Your task to perform on an android device: View the shopping cart on bestbuy.com. Search for "apple airpods pro" on bestbuy.com, select the first entry, and add it to the cart. Image 0: 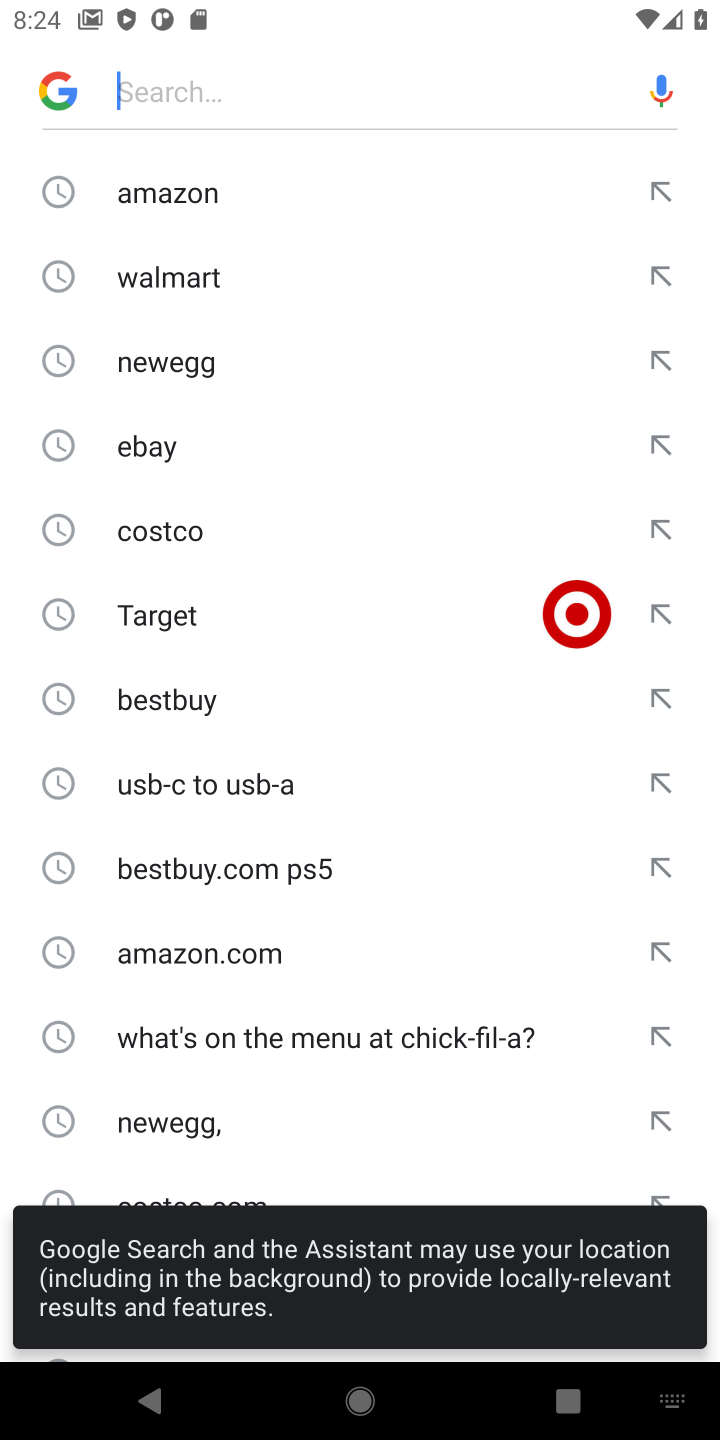
Step 0: press home button
Your task to perform on an android device: View the shopping cart on bestbuy.com. Search for "apple airpods pro" on bestbuy.com, select the first entry, and add it to the cart. Image 1: 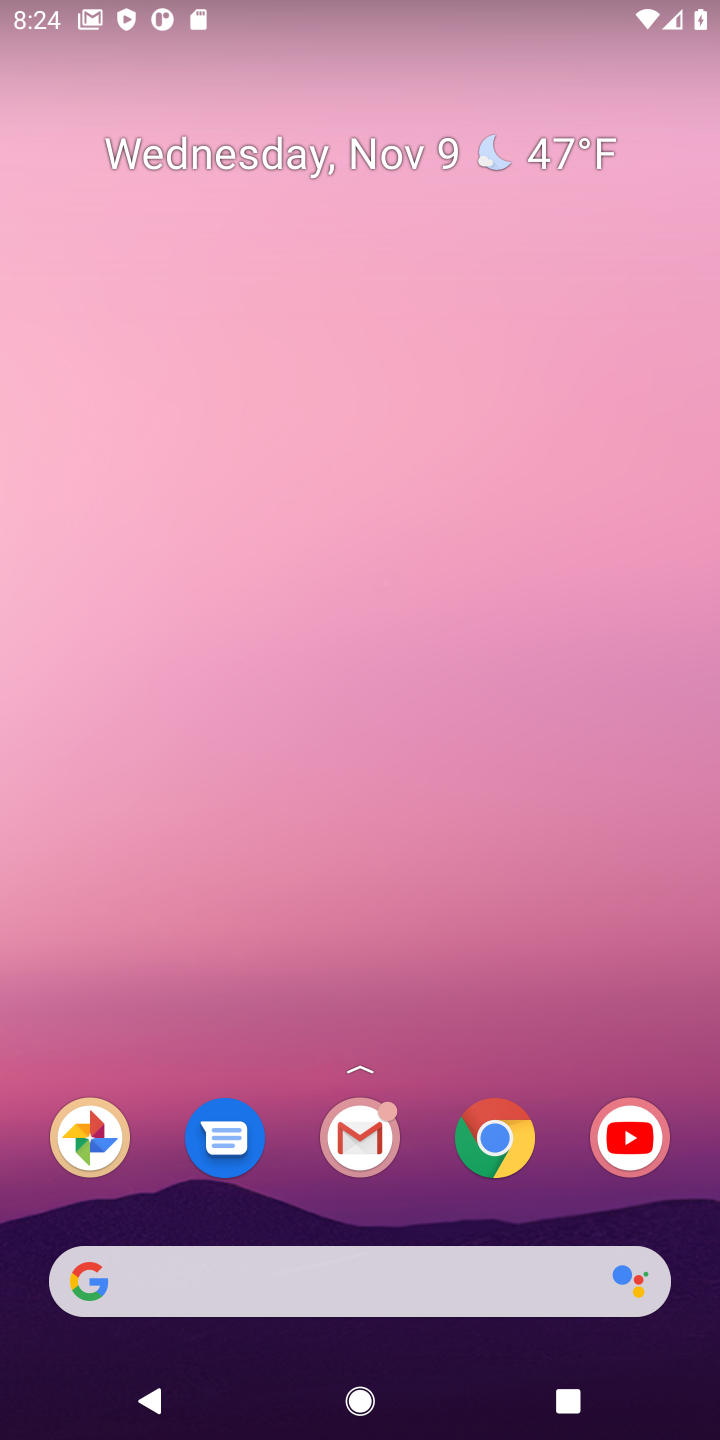
Step 1: drag from (421, 1206) to (267, 19)
Your task to perform on an android device: View the shopping cart on bestbuy.com. Search for "apple airpods pro" on bestbuy.com, select the first entry, and add it to the cart. Image 2: 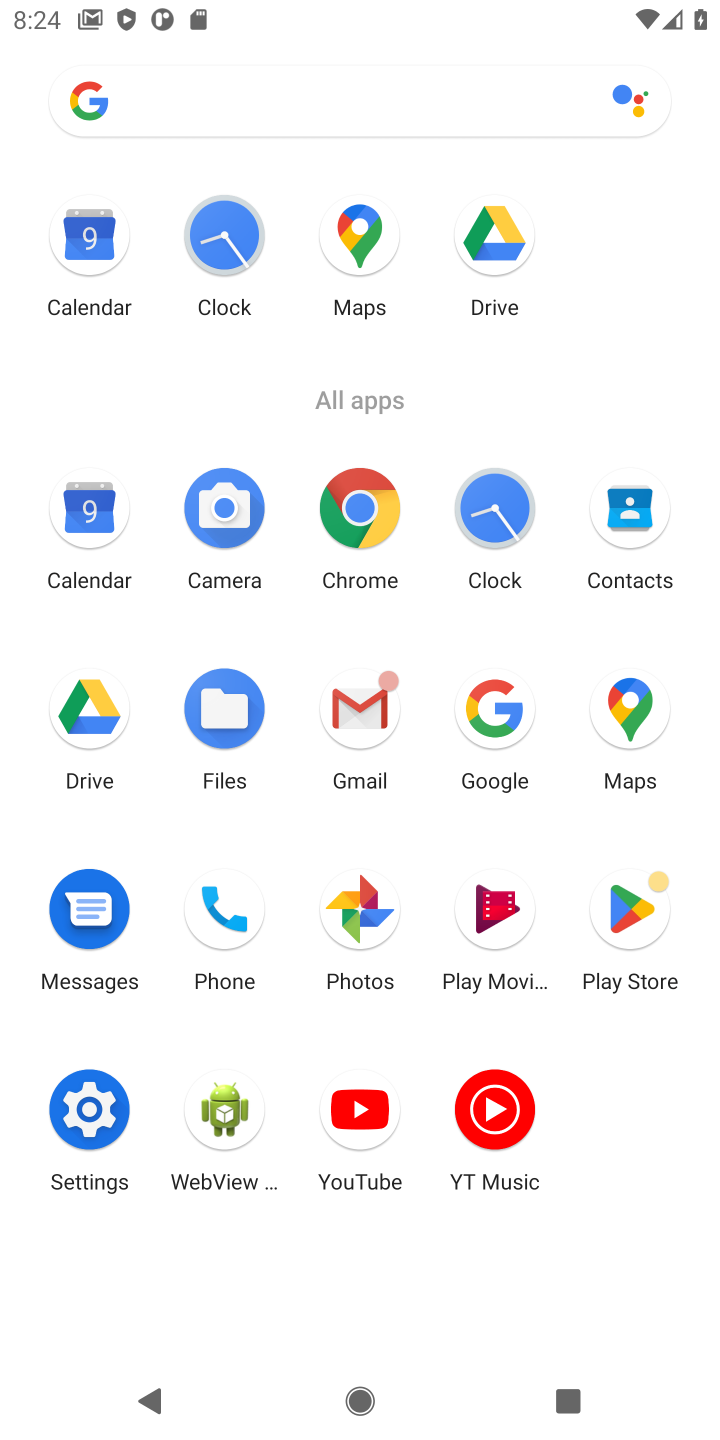
Step 2: click (372, 501)
Your task to perform on an android device: View the shopping cart on bestbuy.com. Search for "apple airpods pro" on bestbuy.com, select the first entry, and add it to the cart. Image 3: 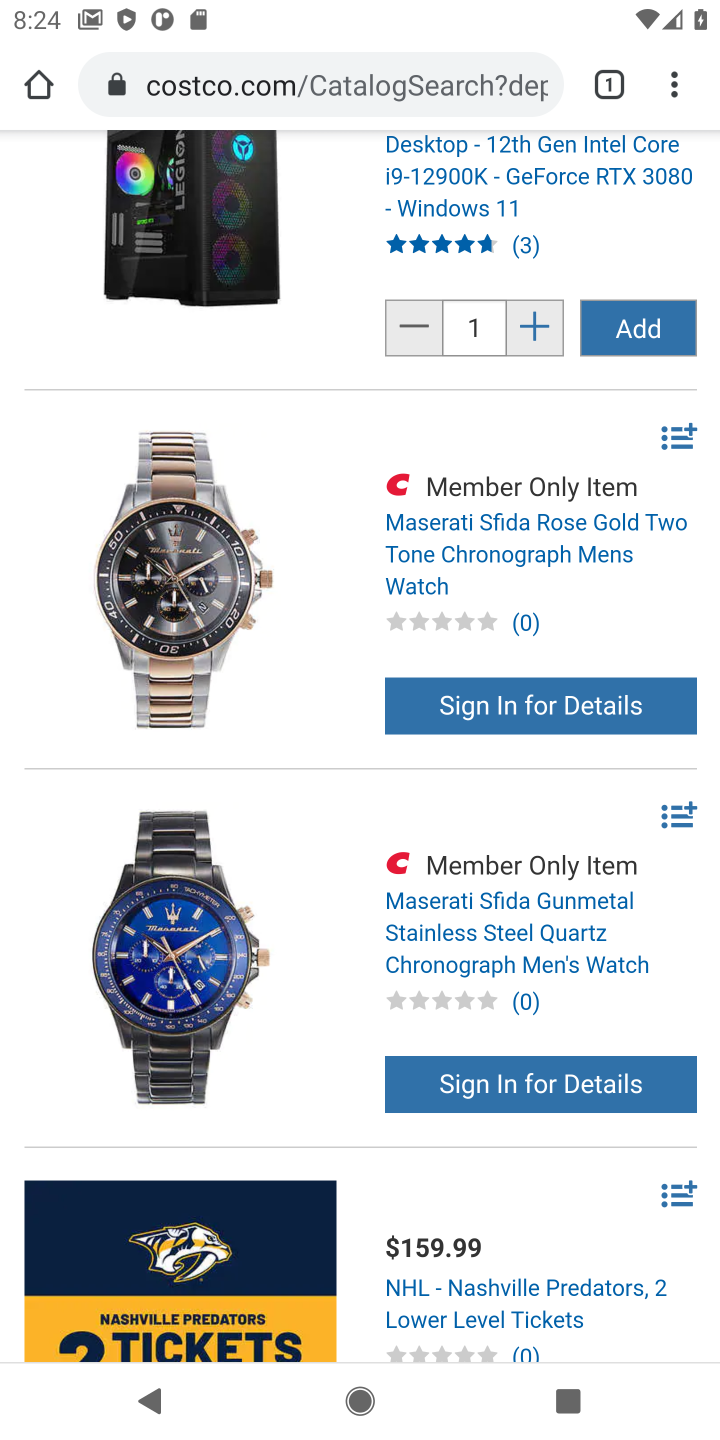
Step 3: click (278, 74)
Your task to perform on an android device: View the shopping cart on bestbuy.com. Search for "apple airpods pro" on bestbuy.com, select the first entry, and add it to the cart. Image 4: 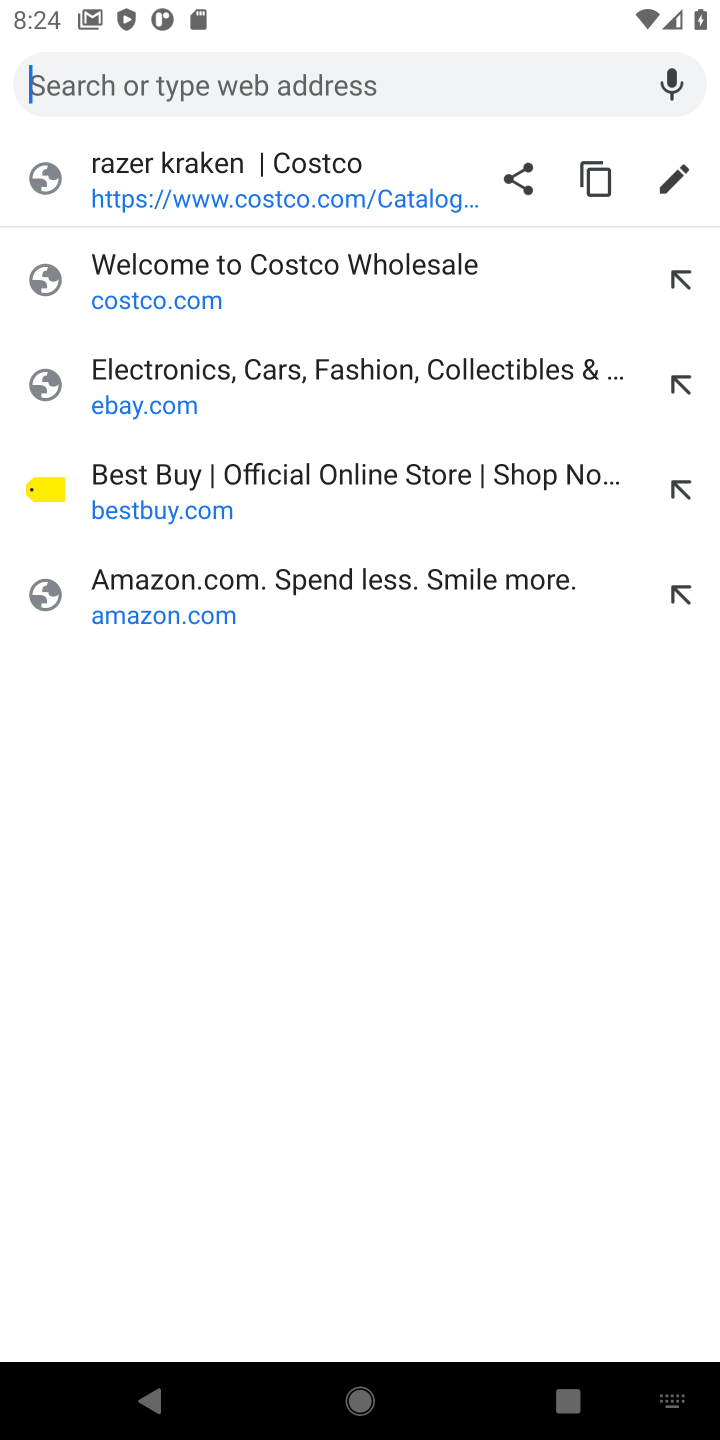
Step 4: type "bestbuy.com"
Your task to perform on an android device: View the shopping cart on bestbuy.com. Search for "apple airpods pro" on bestbuy.com, select the first entry, and add it to the cart. Image 5: 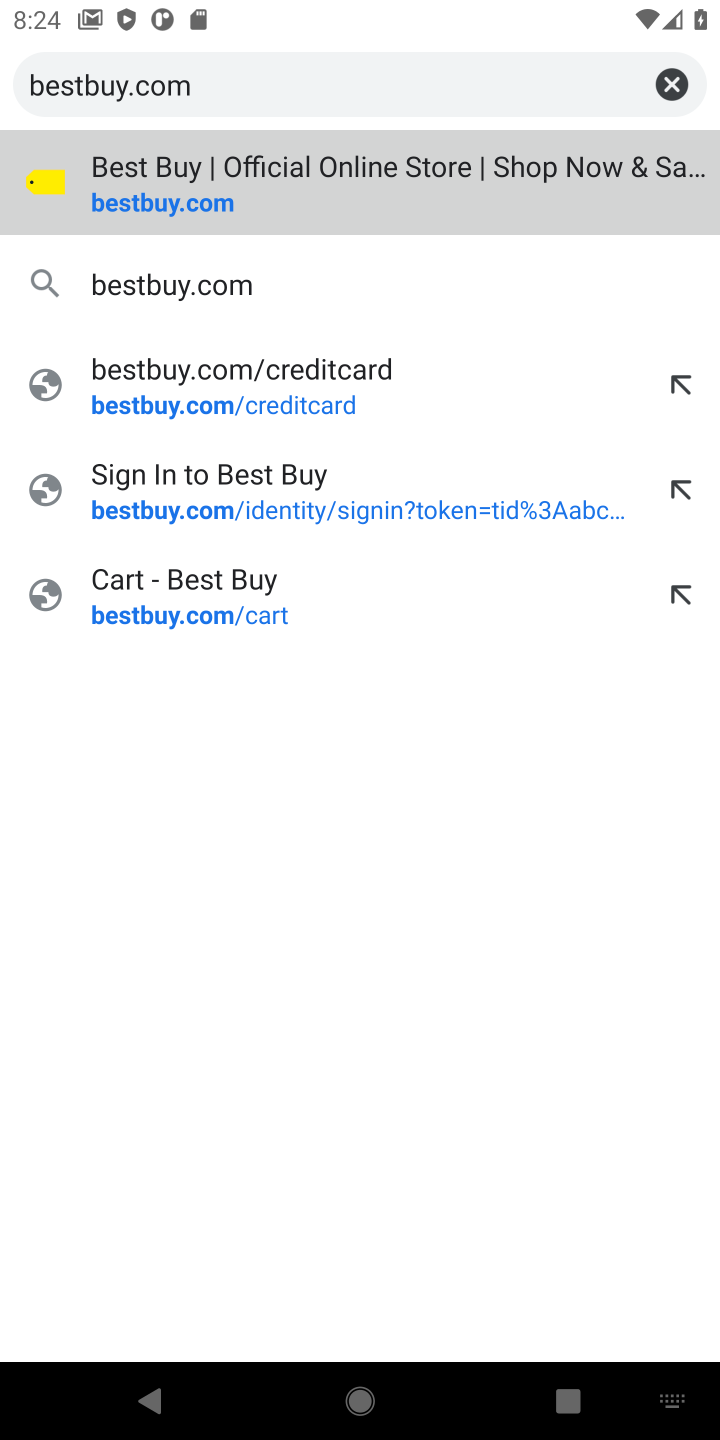
Step 5: press enter
Your task to perform on an android device: View the shopping cart on bestbuy.com. Search for "apple airpods pro" on bestbuy.com, select the first entry, and add it to the cart. Image 6: 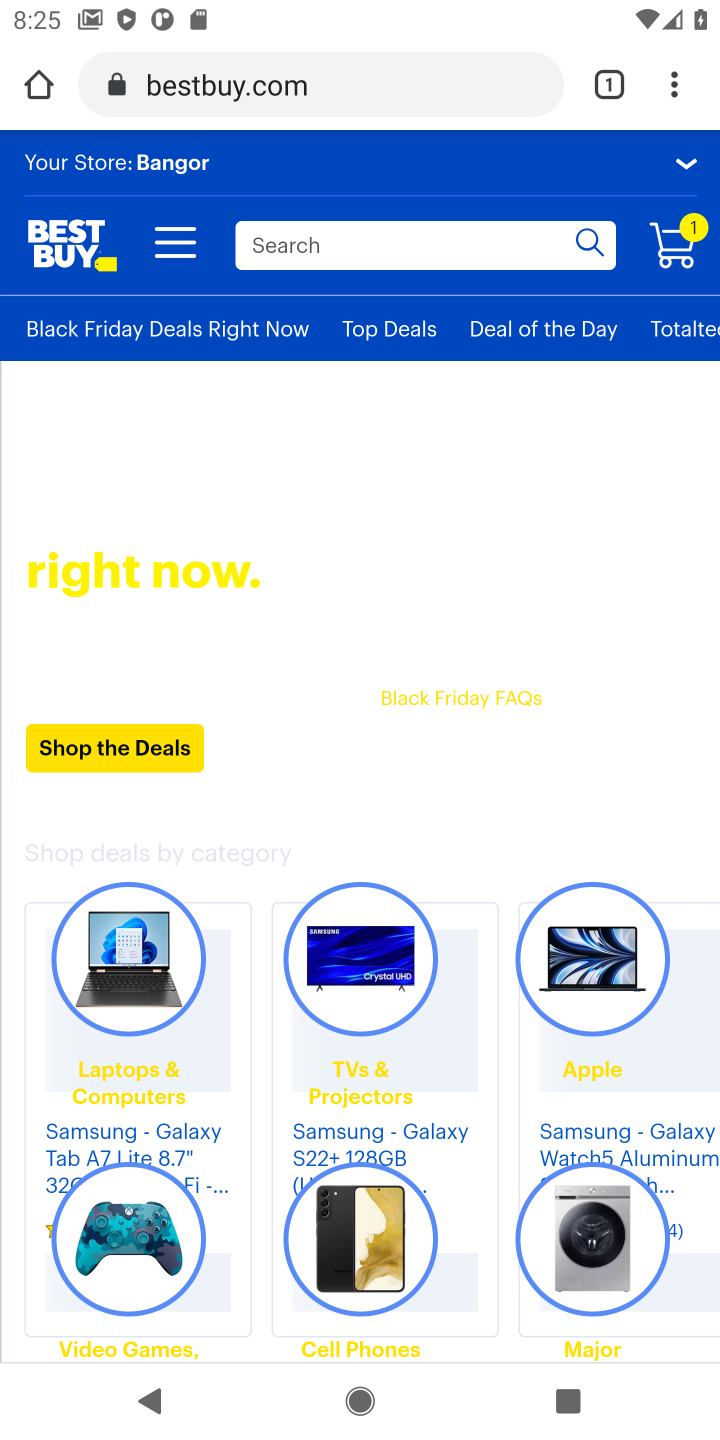
Step 6: click (658, 235)
Your task to perform on an android device: View the shopping cart on bestbuy.com. Search for "apple airpods pro" on bestbuy.com, select the first entry, and add it to the cart. Image 7: 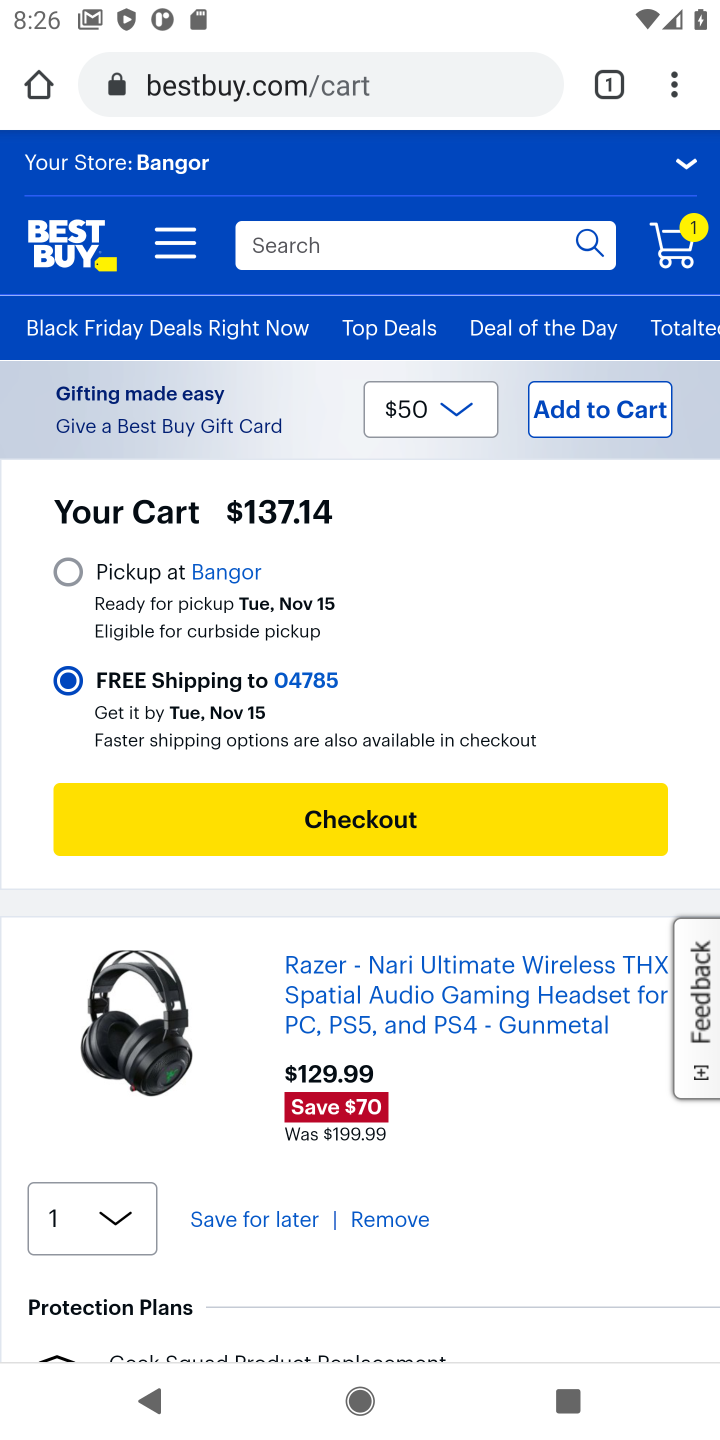
Step 7: click (481, 237)
Your task to perform on an android device: View the shopping cart on bestbuy.com. Search for "apple airpods pro" on bestbuy.com, select the first entry, and add it to the cart. Image 8: 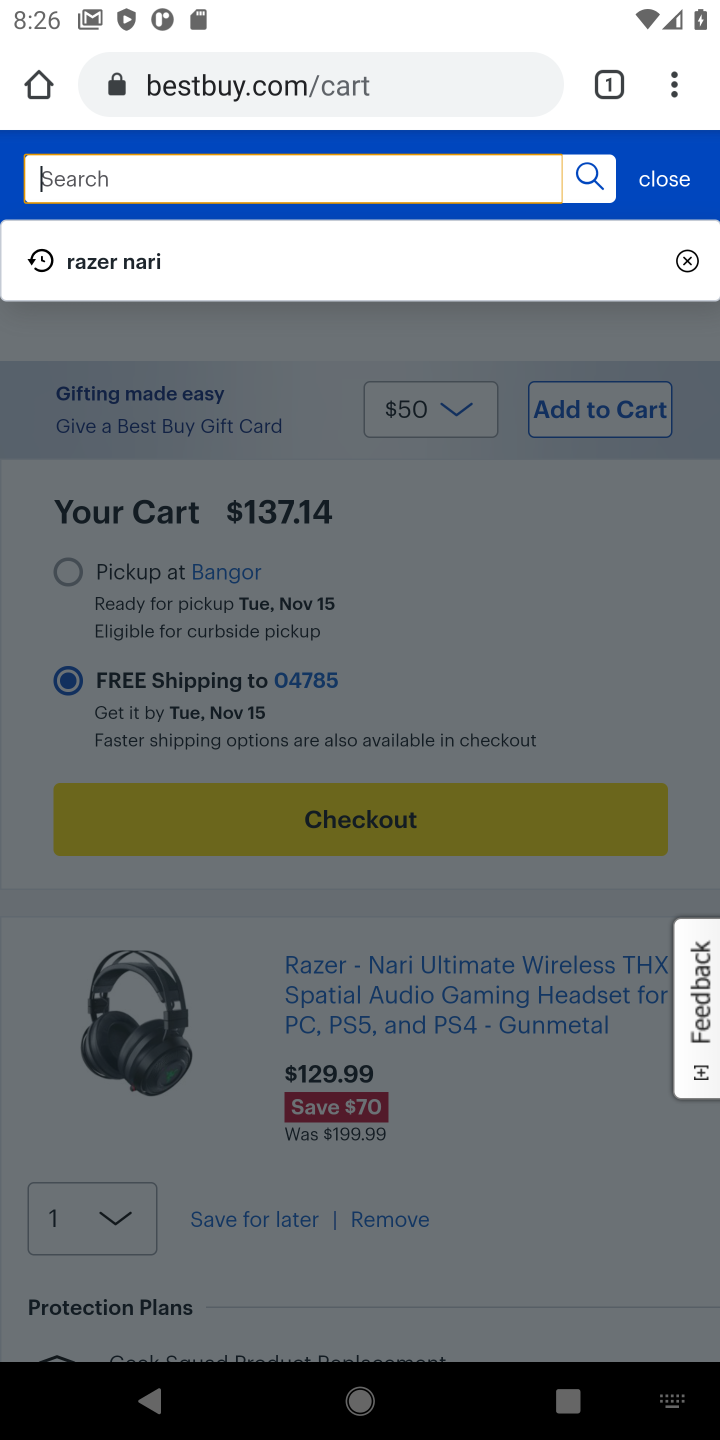
Step 8: type "apple airpods pro"
Your task to perform on an android device: View the shopping cart on bestbuy.com. Search for "apple airpods pro" on bestbuy.com, select the first entry, and add it to the cart. Image 9: 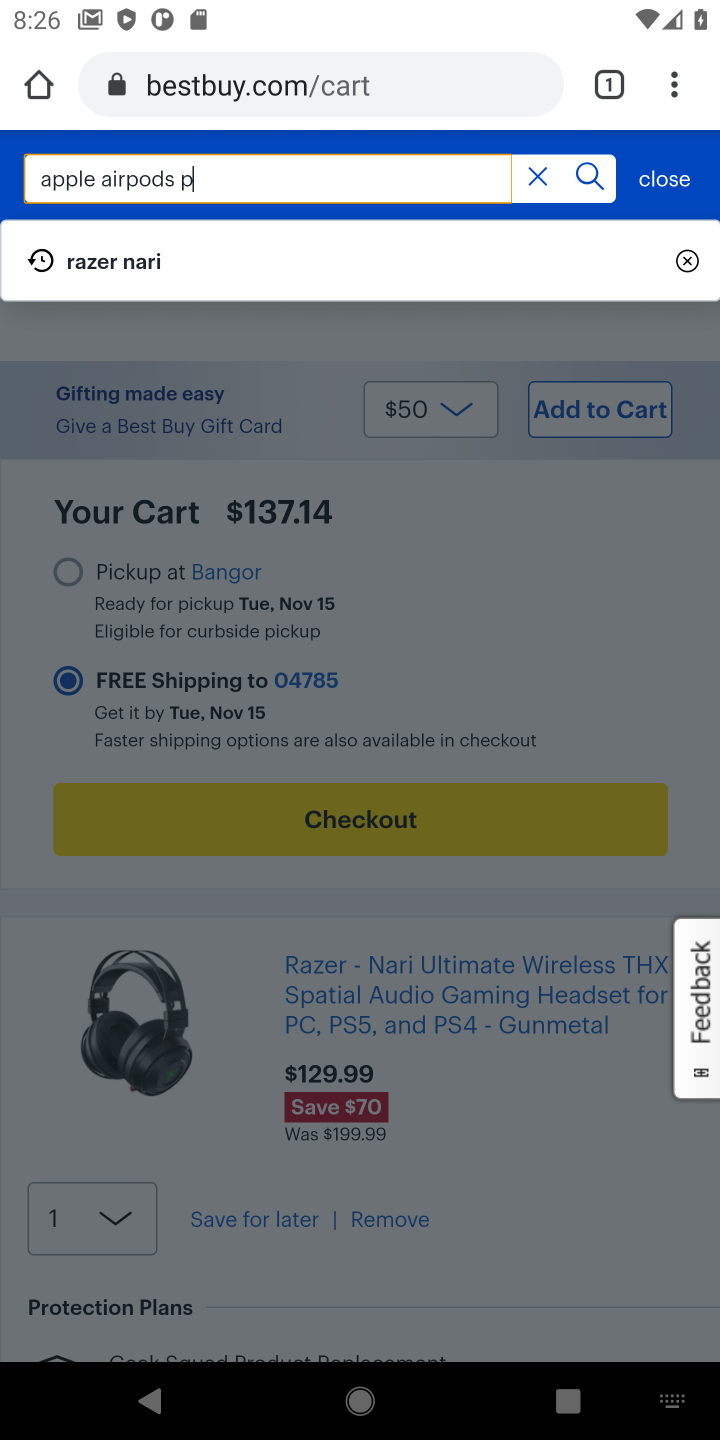
Step 9: press enter
Your task to perform on an android device: View the shopping cart on bestbuy.com. Search for "apple airpods pro" on bestbuy.com, select the first entry, and add it to the cart. Image 10: 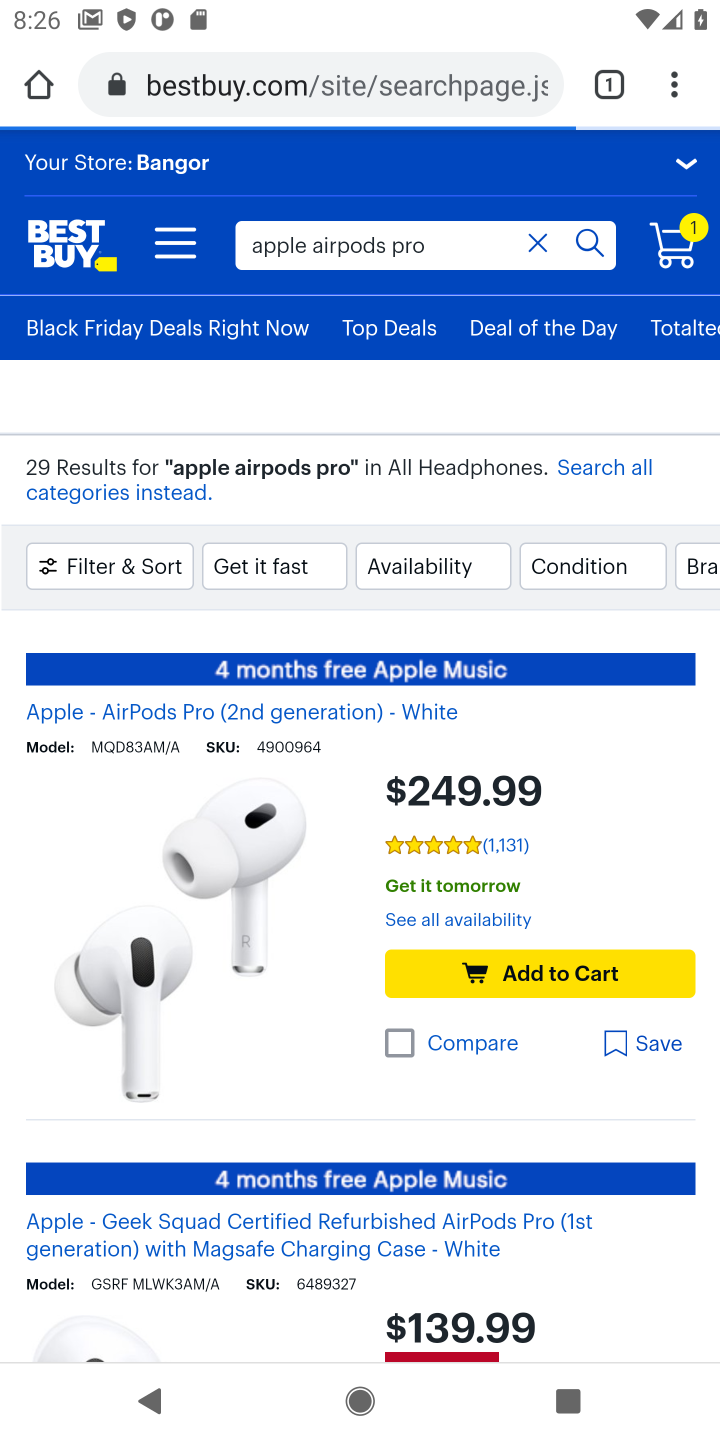
Step 10: drag from (335, 1121) to (321, 825)
Your task to perform on an android device: View the shopping cart on bestbuy.com. Search for "apple airpods pro" on bestbuy.com, select the first entry, and add it to the cart. Image 11: 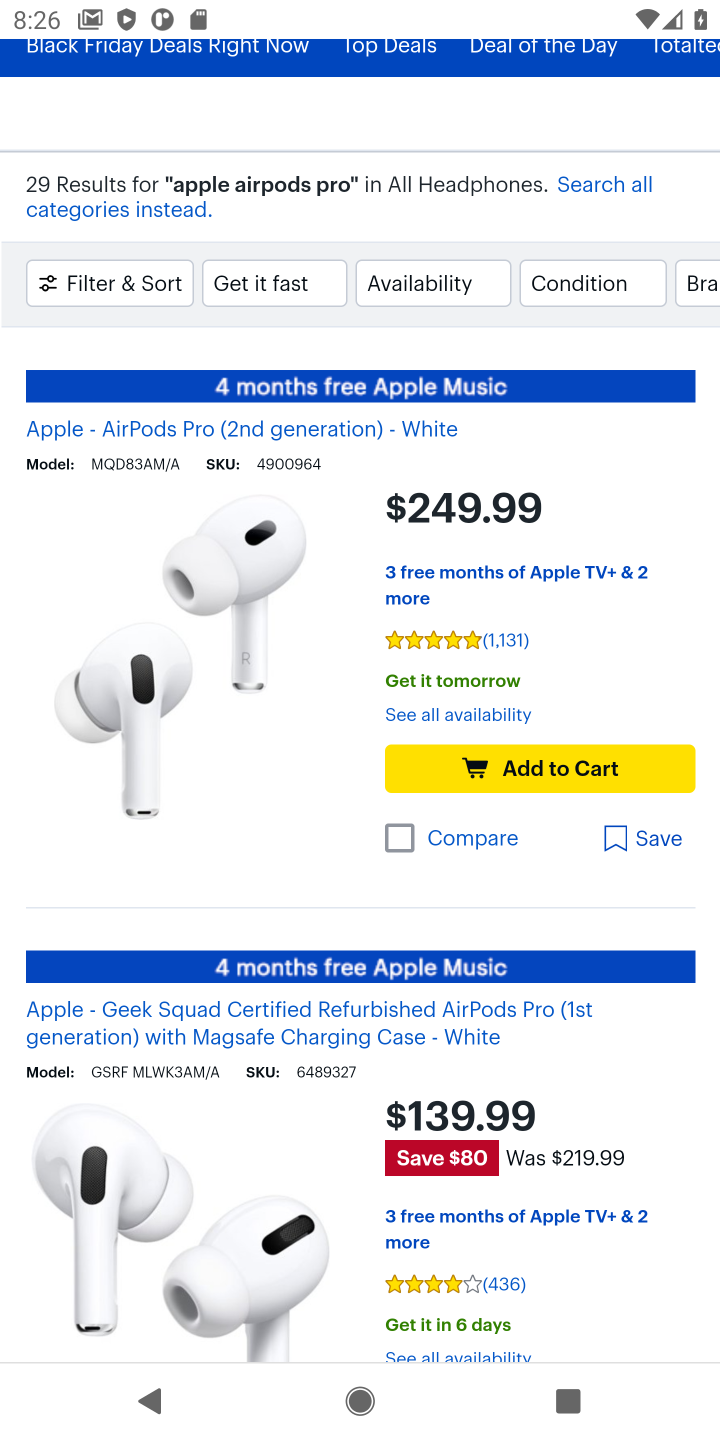
Step 11: click (573, 698)
Your task to perform on an android device: View the shopping cart on bestbuy.com. Search for "apple airpods pro" on bestbuy.com, select the first entry, and add it to the cart. Image 12: 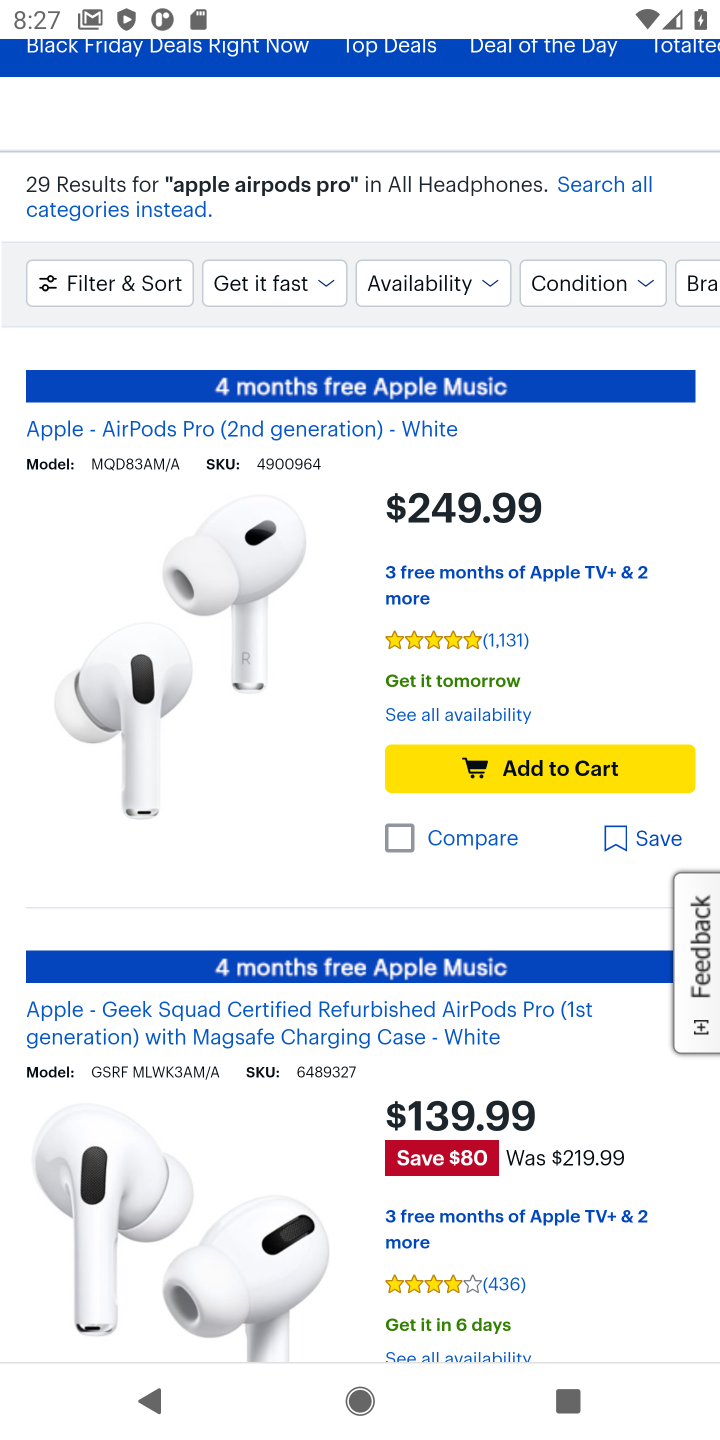
Step 12: click (597, 767)
Your task to perform on an android device: View the shopping cart on bestbuy.com. Search for "apple airpods pro" on bestbuy.com, select the first entry, and add it to the cart. Image 13: 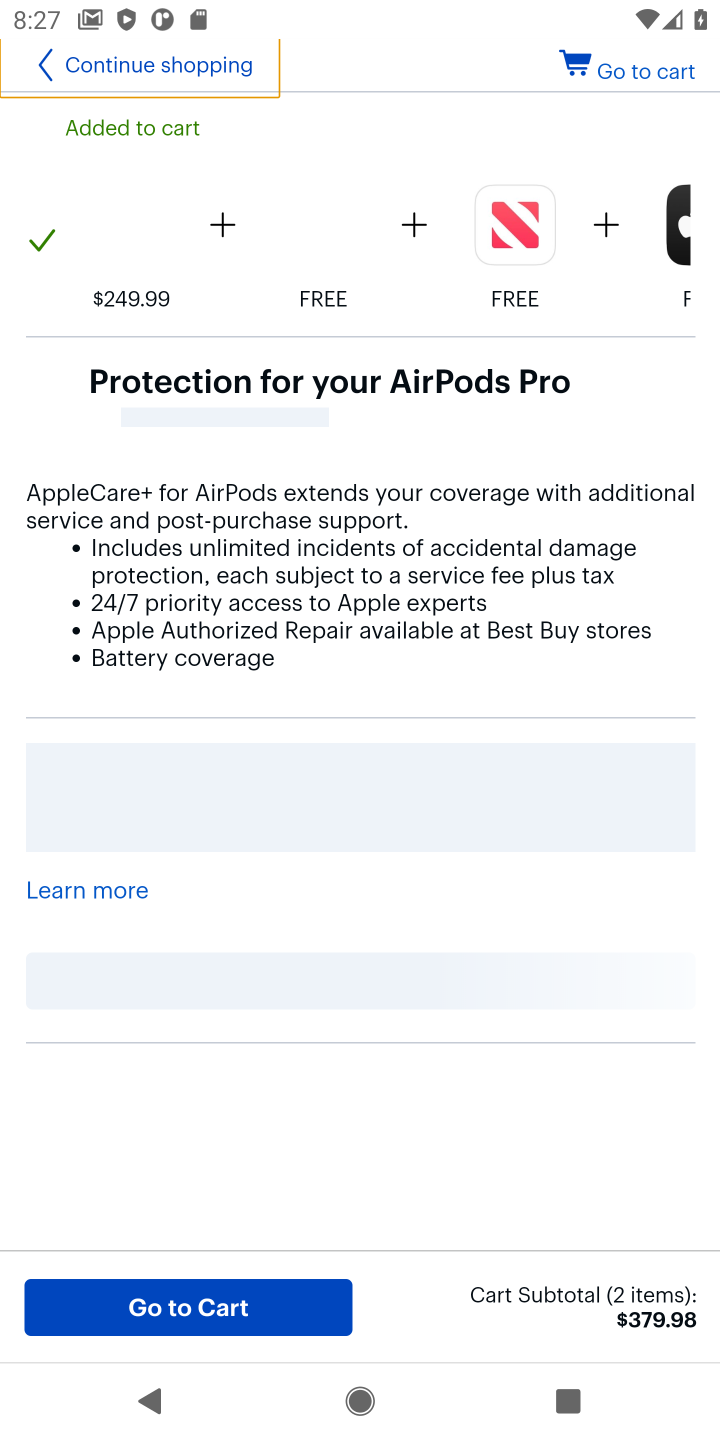
Step 13: task complete